Your task to perform on an android device: Open Youtube and go to the subscriptions tab Image 0: 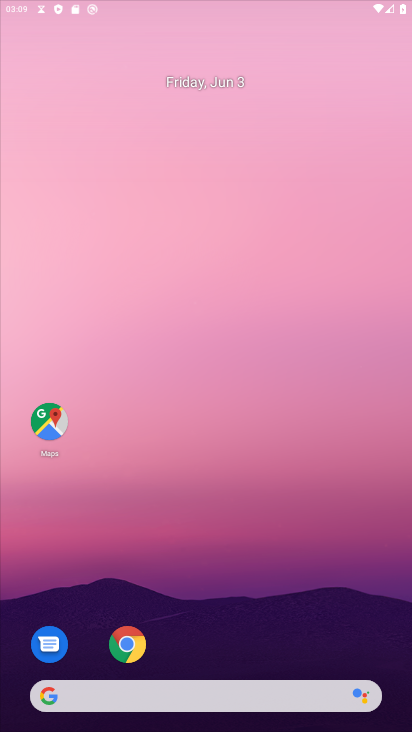
Step 0: drag from (286, 595) to (292, 109)
Your task to perform on an android device: Open Youtube and go to the subscriptions tab Image 1: 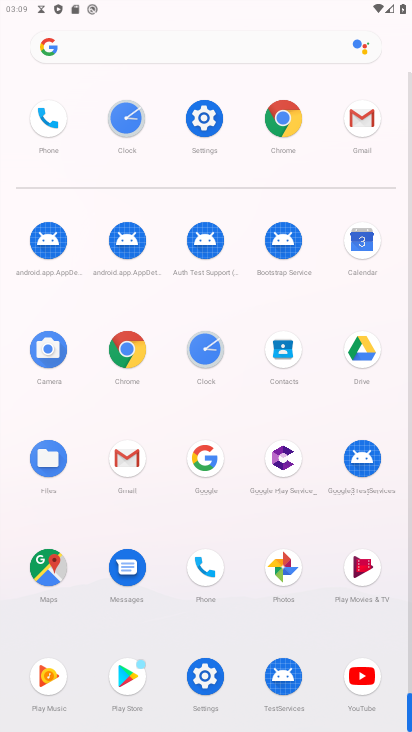
Step 1: click (377, 682)
Your task to perform on an android device: Open Youtube and go to the subscriptions tab Image 2: 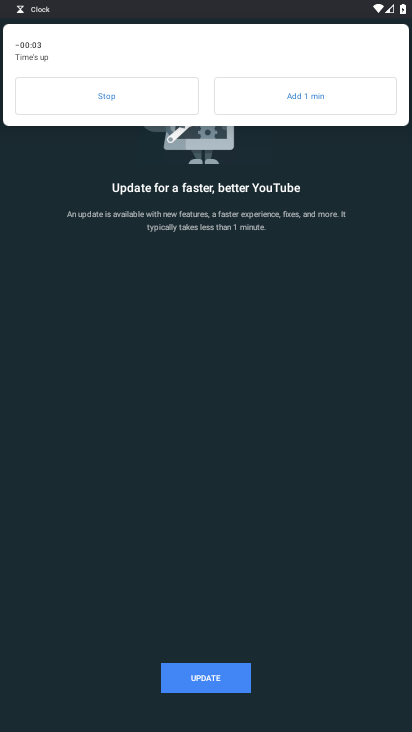
Step 2: click (218, 679)
Your task to perform on an android device: Open Youtube and go to the subscriptions tab Image 3: 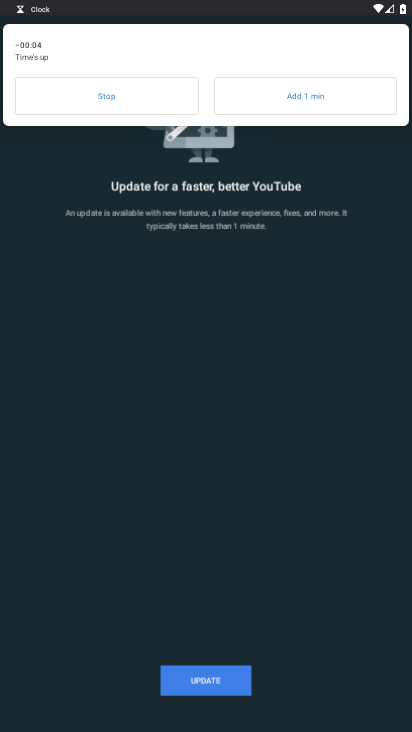
Step 3: click (155, 100)
Your task to perform on an android device: Open Youtube and go to the subscriptions tab Image 4: 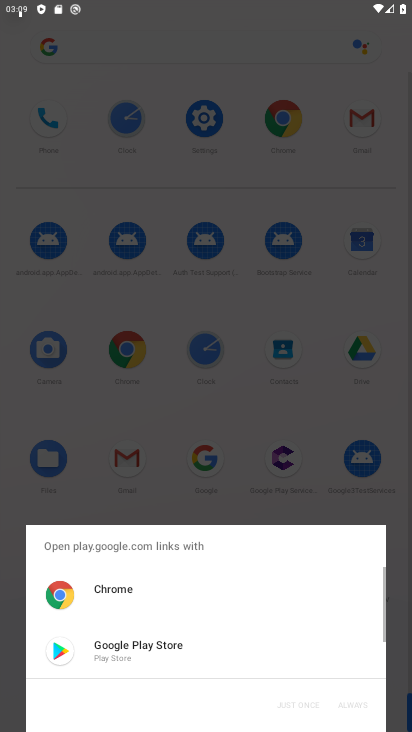
Step 4: click (137, 646)
Your task to perform on an android device: Open Youtube and go to the subscriptions tab Image 5: 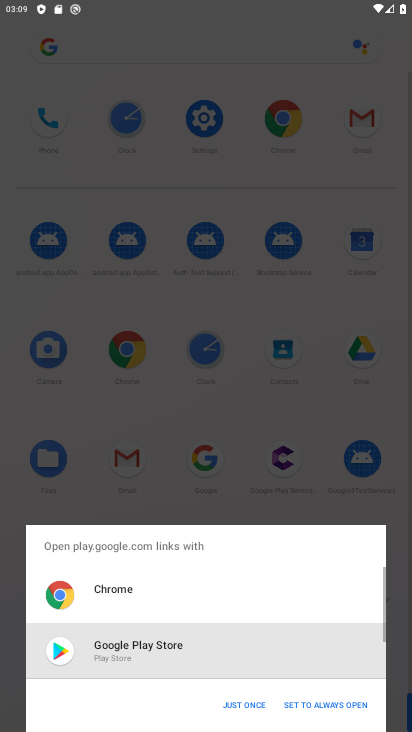
Step 5: click (194, 686)
Your task to perform on an android device: Open Youtube and go to the subscriptions tab Image 6: 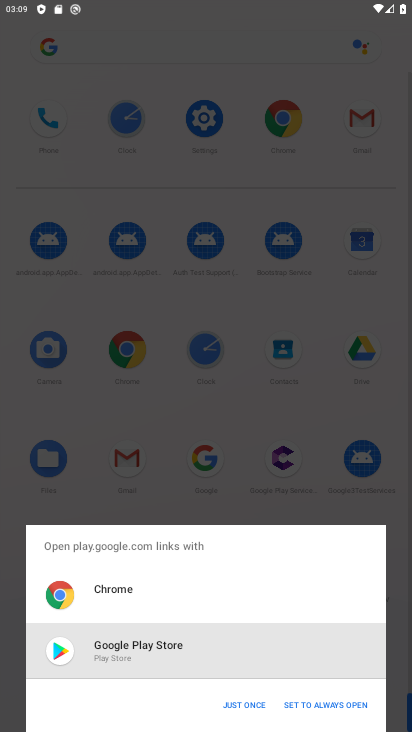
Step 6: click (223, 702)
Your task to perform on an android device: Open Youtube and go to the subscriptions tab Image 7: 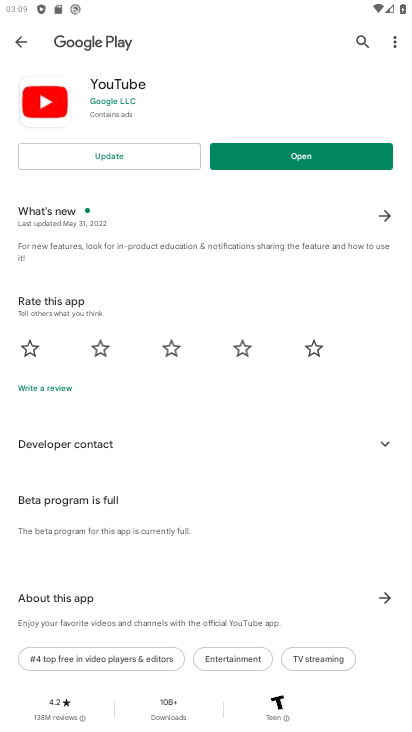
Step 7: click (165, 167)
Your task to perform on an android device: Open Youtube and go to the subscriptions tab Image 8: 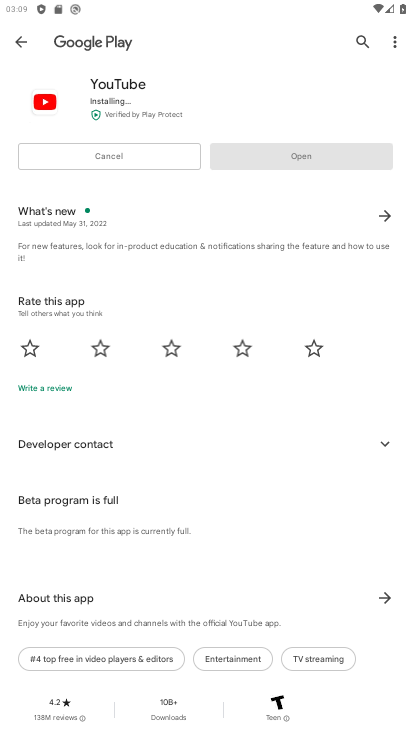
Step 8: drag from (356, 674) to (325, 80)
Your task to perform on an android device: Open Youtube and go to the subscriptions tab Image 9: 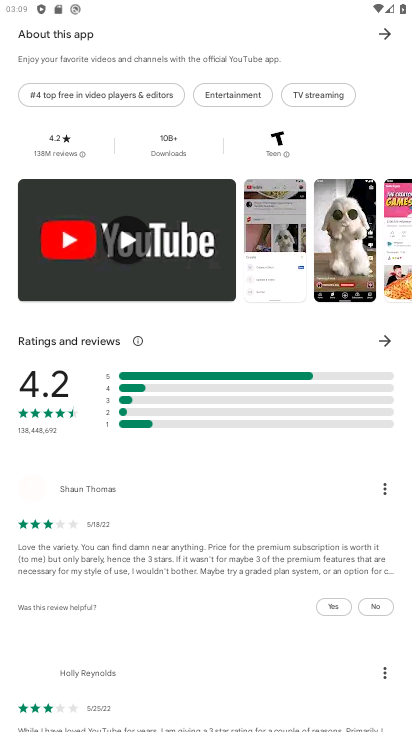
Step 9: click (344, 511)
Your task to perform on an android device: Open Youtube and go to the subscriptions tab Image 10: 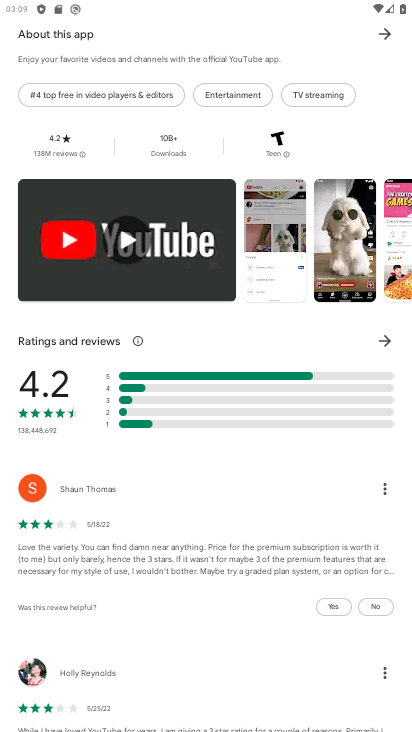
Step 10: click (335, 289)
Your task to perform on an android device: Open Youtube and go to the subscriptions tab Image 11: 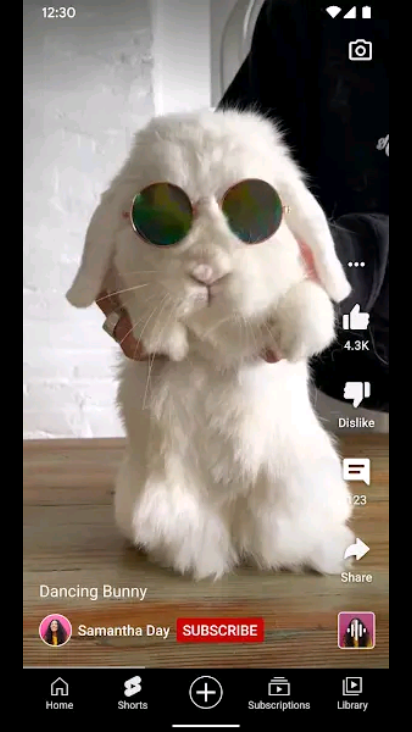
Step 11: press back button
Your task to perform on an android device: Open Youtube and go to the subscriptions tab Image 12: 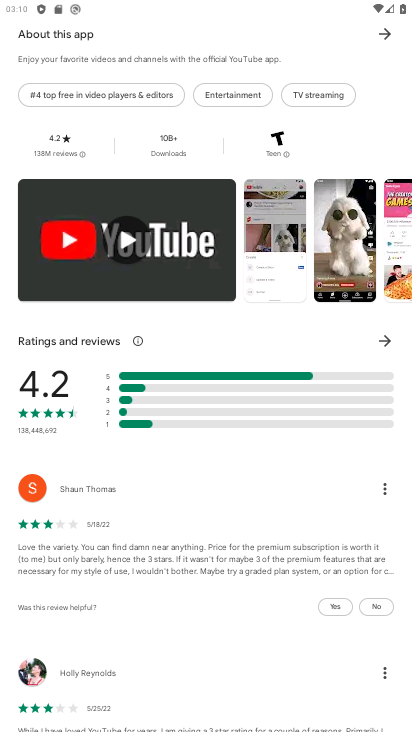
Step 12: drag from (192, 102) to (166, 730)
Your task to perform on an android device: Open Youtube and go to the subscriptions tab Image 13: 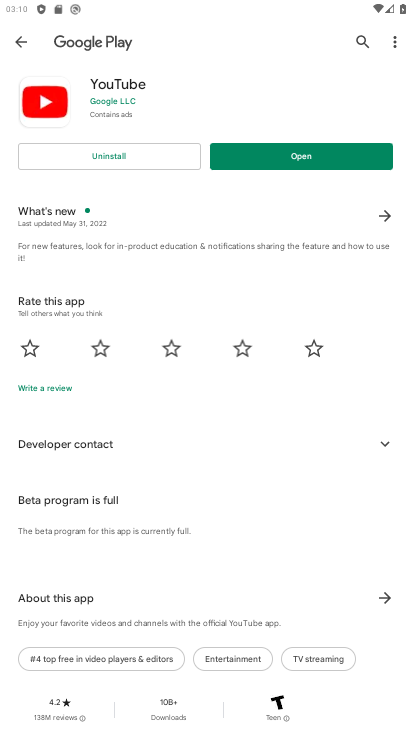
Step 13: click (275, 158)
Your task to perform on an android device: Open Youtube and go to the subscriptions tab Image 14: 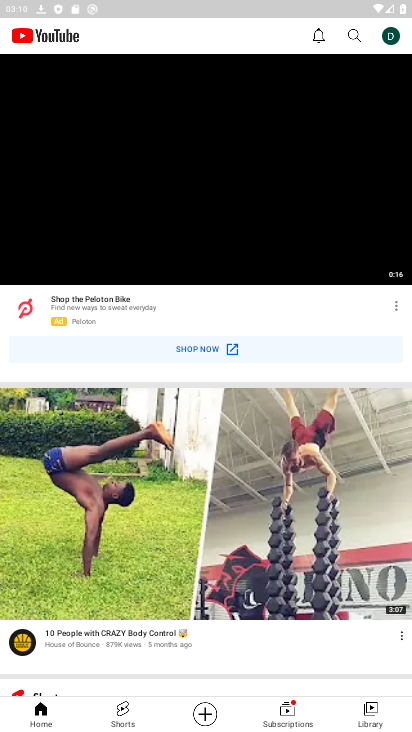
Step 14: click (279, 702)
Your task to perform on an android device: Open Youtube and go to the subscriptions tab Image 15: 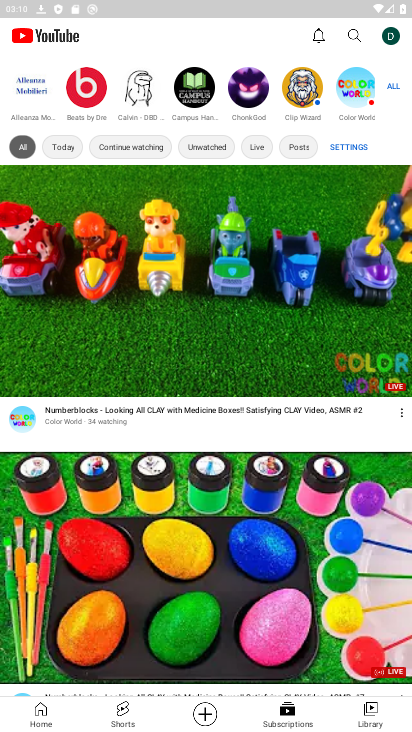
Step 15: task complete